Your task to perform on an android device: toggle notifications settings in the gmail app Image 0: 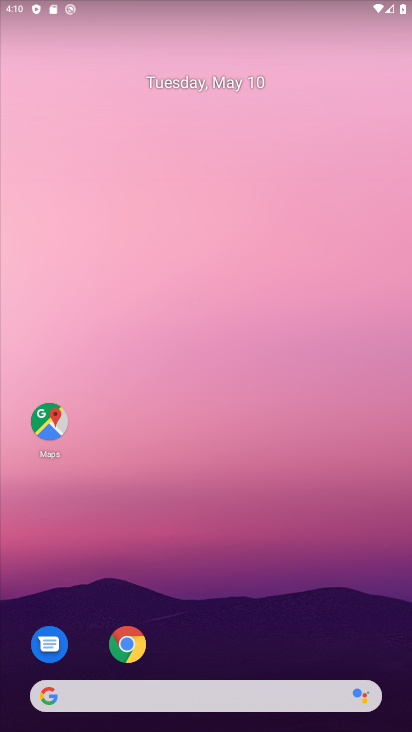
Step 0: drag from (149, 678) to (155, 313)
Your task to perform on an android device: toggle notifications settings in the gmail app Image 1: 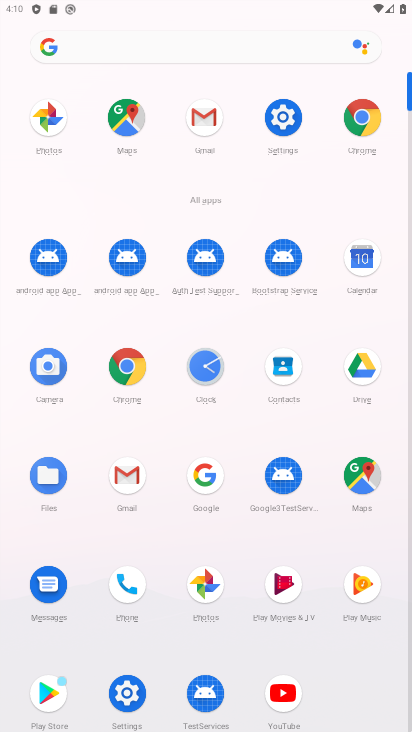
Step 1: click (129, 475)
Your task to perform on an android device: toggle notifications settings in the gmail app Image 2: 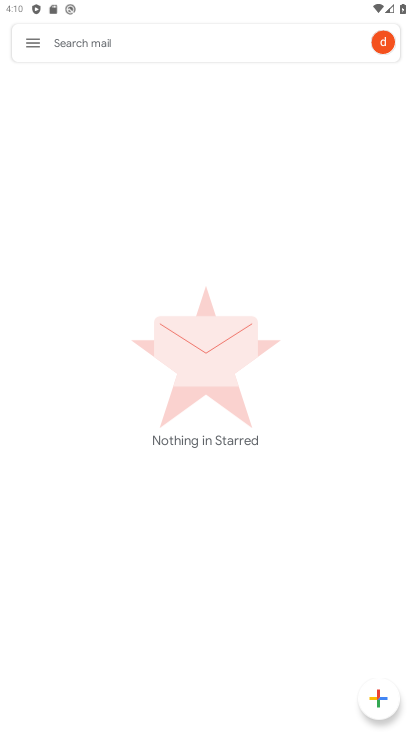
Step 2: click (31, 47)
Your task to perform on an android device: toggle notifications settings in the gmail app Image 3: 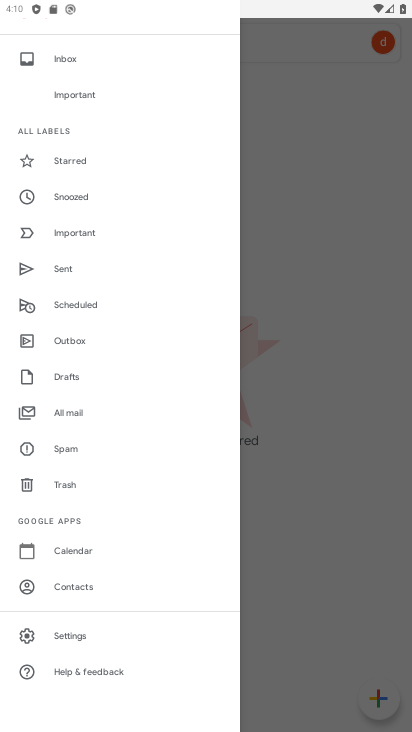
Step 3: click (78, 627)
Your task to perform on an android device: toggle notifications settings in the gmail app Image 4: 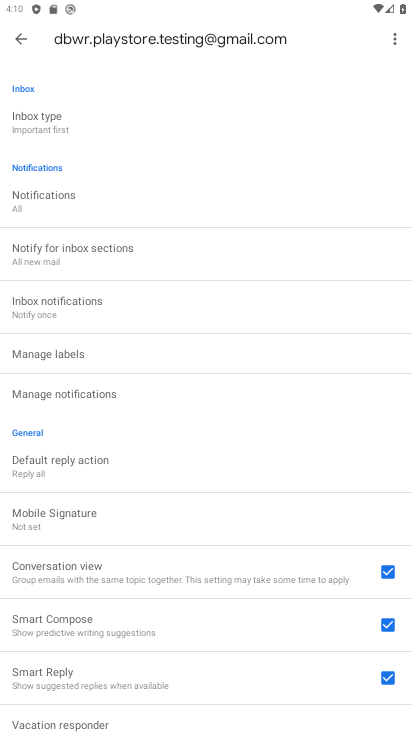
Step 4: click (6, 35)
Your task to perform on an android device: toggle notifications settings in the gmail app Image 5: 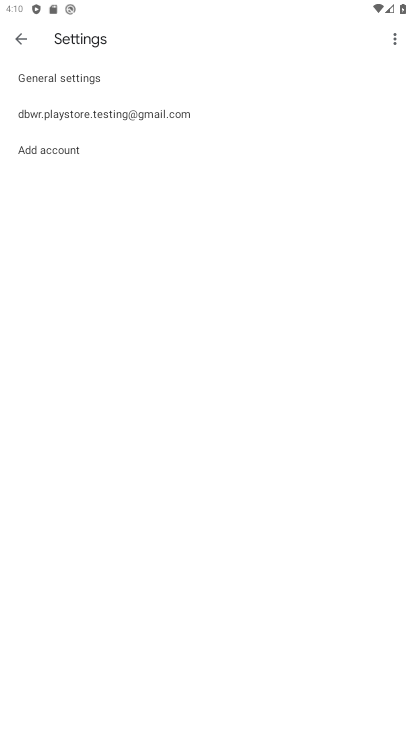
Step 5: click (76, 72)
Your task to perform on an android device: toggle notifications settings in the gmail app Image 6: 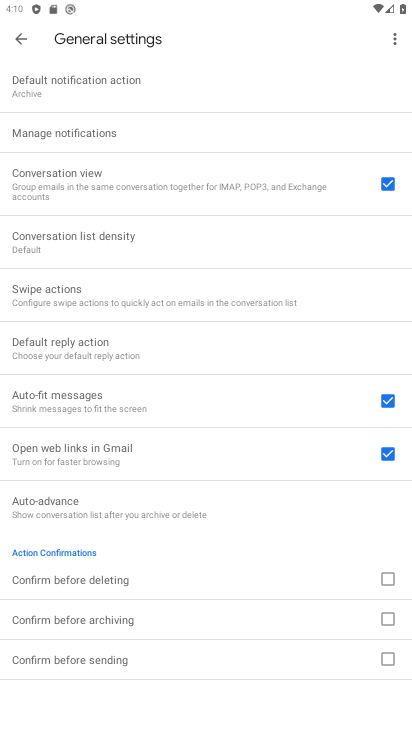
Step 6: click (50, 130)
Your task to perform on an android device: toggle notifications settings in the gmail app Image 7: 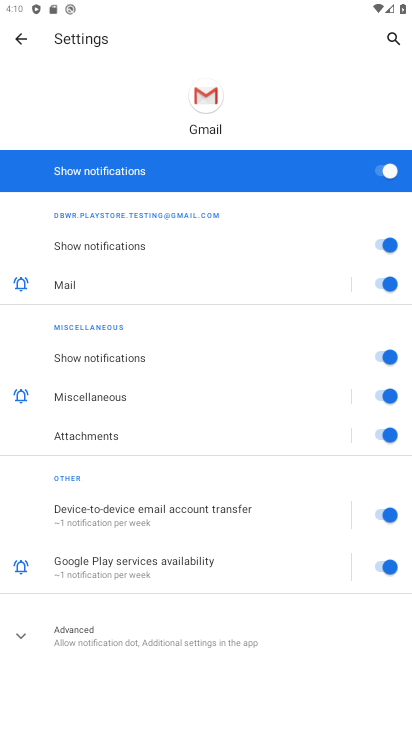
Step 7: click (381, 167)
Your task to perform on an android device: toggle notifications settings in the gmail app Image 8: 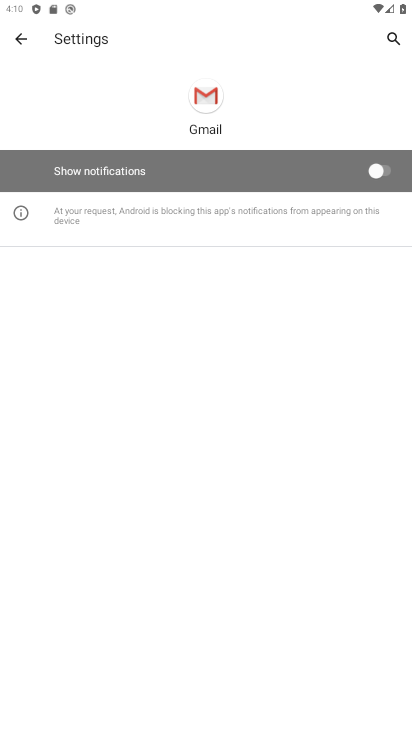
Step 8: task complete